Your task to perform on an android device: Open privacy settings Image 0: 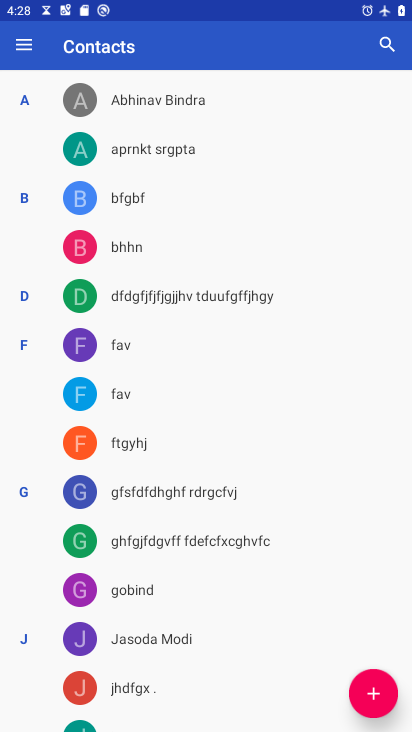
Step 0: press back button
Your task to perform on an android device: Open privacy settings Image 1: 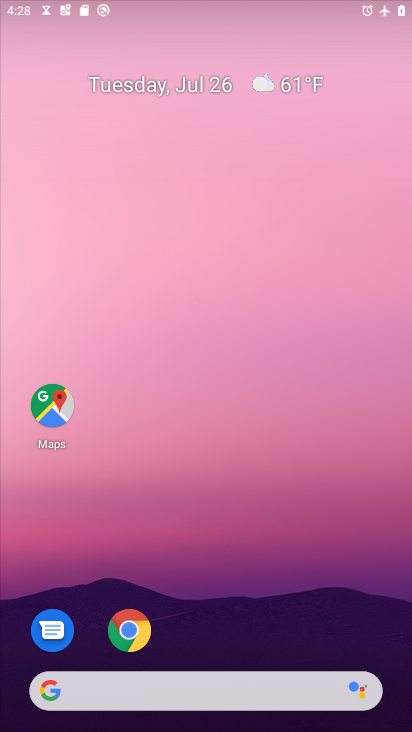
Step 1: drag from (284, 659) to (244, 148)
Your task to perform on an android device: Open privacy settings Image 2: 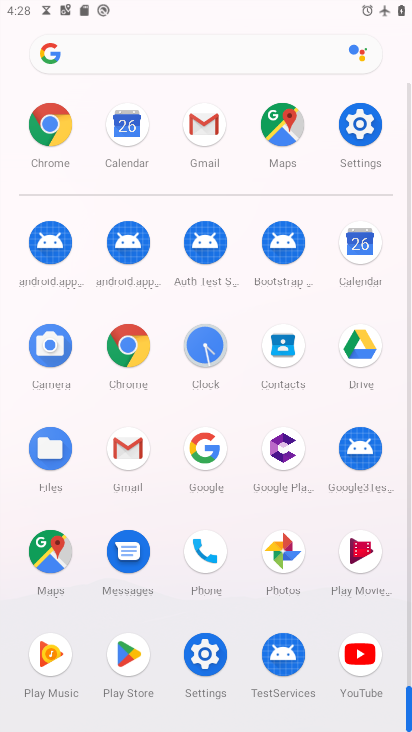
Step 2: click (366, 120)
Your task to perform on an android device: Open privacy settings Image 3: 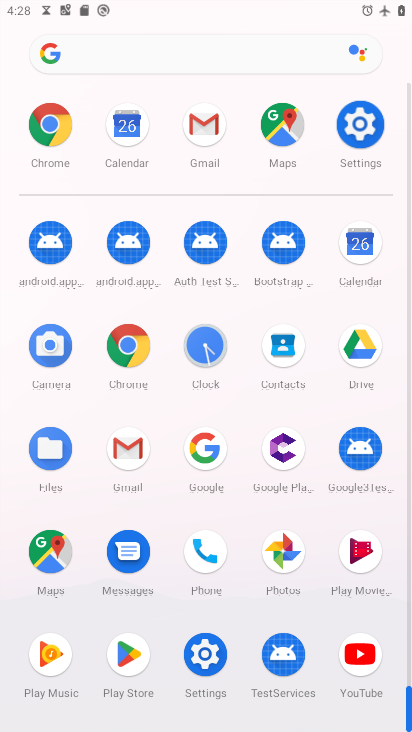
Step 3: click (362, 119)
Your task to perform on an android device: Open privacy settings Image 4: 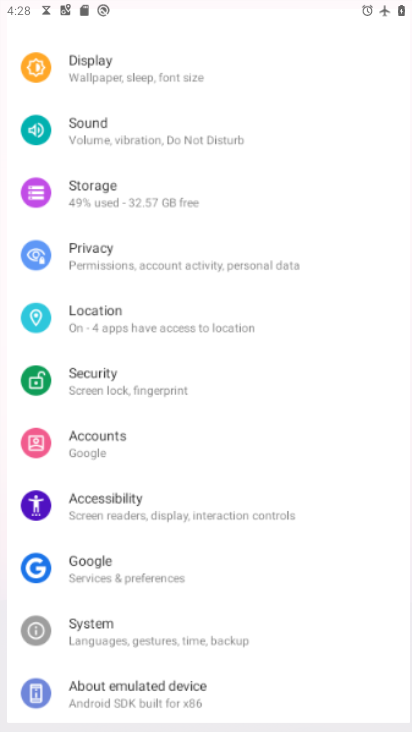
Step 4: click (362, 118)
Your task to perform on an android device: Open privacy settings Image 5: 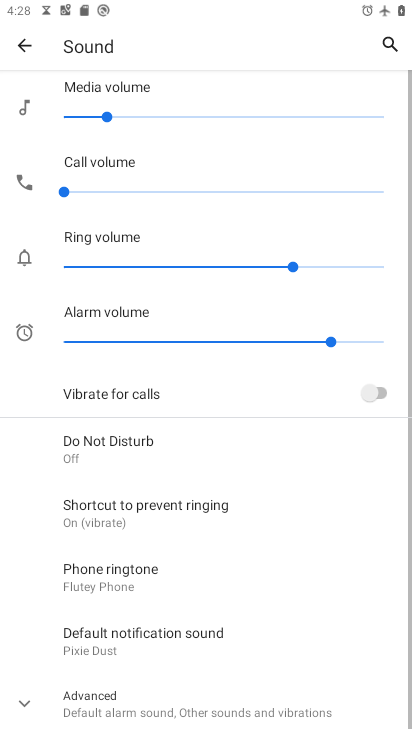
Step 5: click (30, 51)
Your task to perform on an android device: Open privacy settings Image 6: 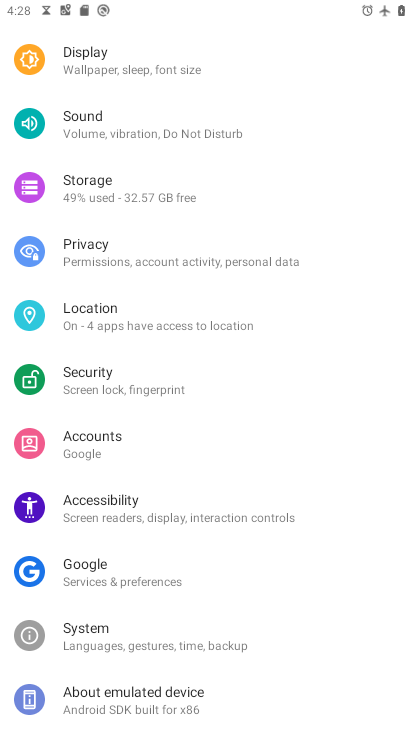
Step 6: click (90, 256)
Your task to perform on an android device: Open privacy settings Image 7: 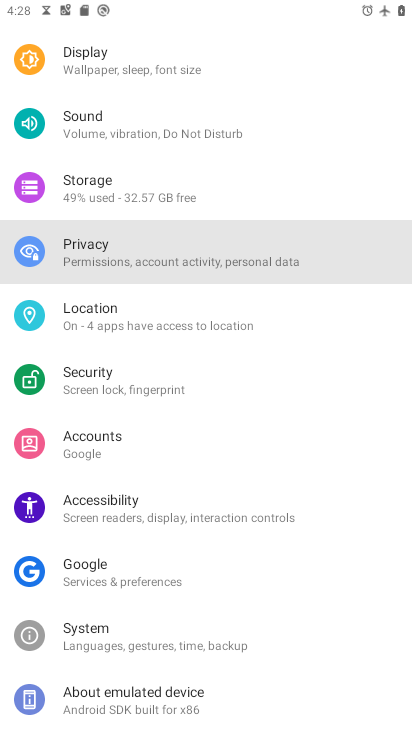
Step 7: click (87, 251)
Your task to perform on an android device: Open privacy settings Image 8: 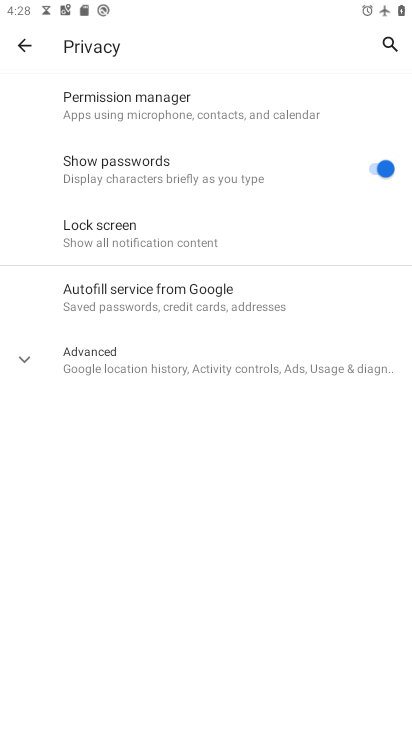
Step 8: task complete